Your task to perform on an android device: Check the weather Image 0: 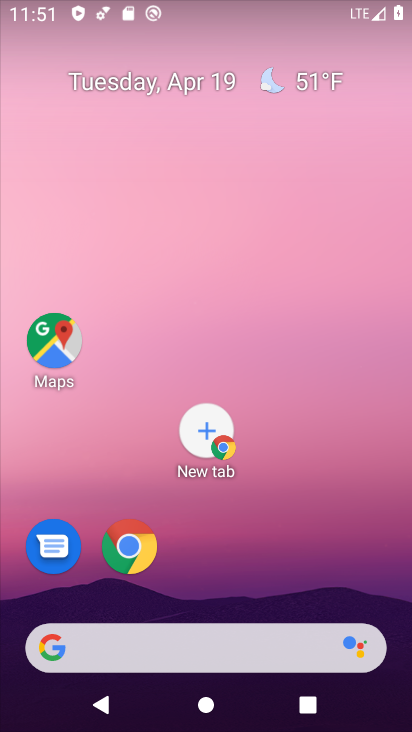
Step 0: click (272, 647)
Your task to perform on an android device: Check the weather Image 1: 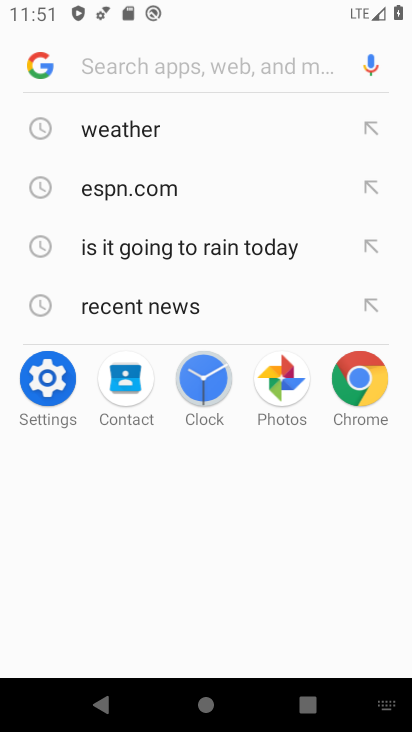
Step 1: click (117, 116)
Your task to perform on an android device: Check the weather Image 2: 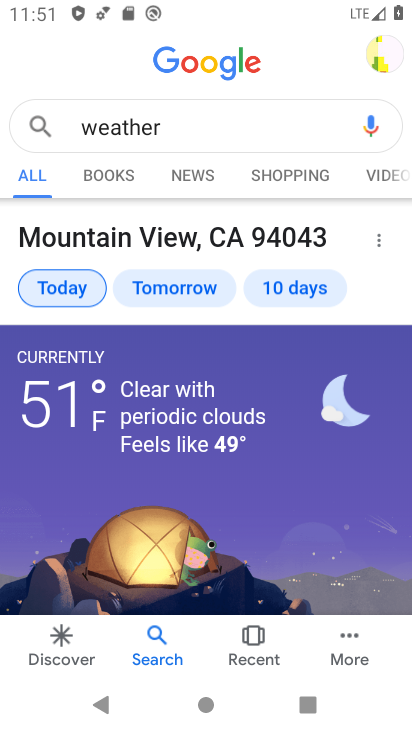
Step 2: task complete